Your task to perform on an android device: Open Google Image 0: 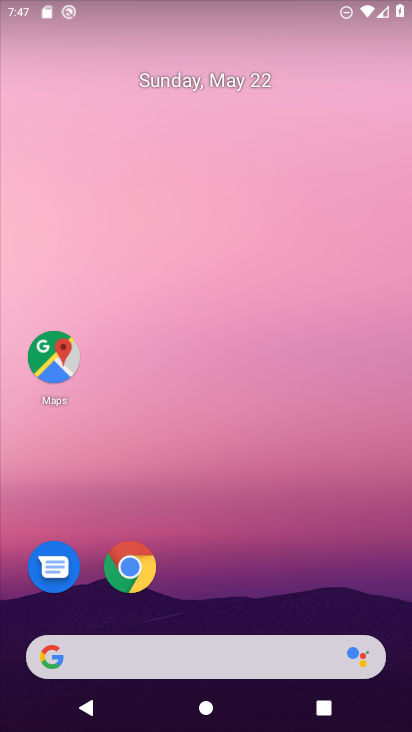
Step 0: drag from (198, 514) to (282, 51)
Your task to perform on an android device: Open Google Image 1: 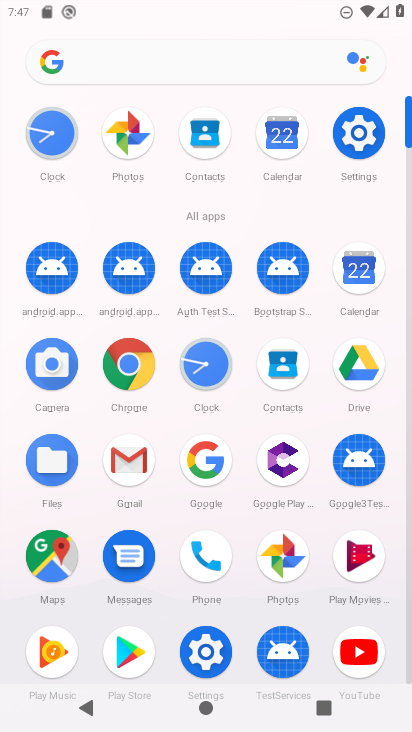
Step 1: click (199, 470)
Your task to perform on an android device: Open Google Image 2: 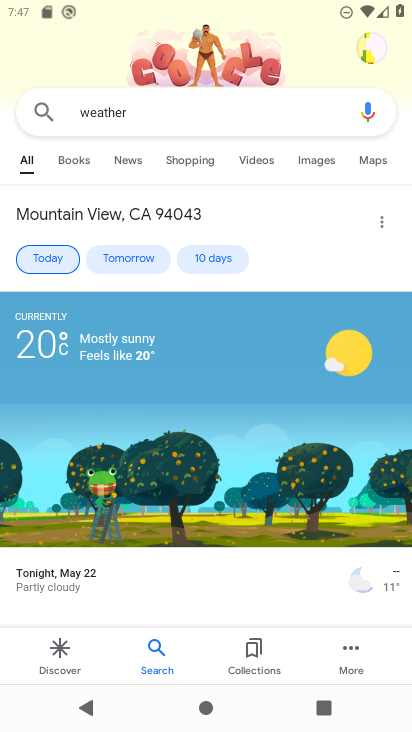
Step 2: task complete